Your task to perform on an android device: open app "DoorDash - Dasher" Image 0: 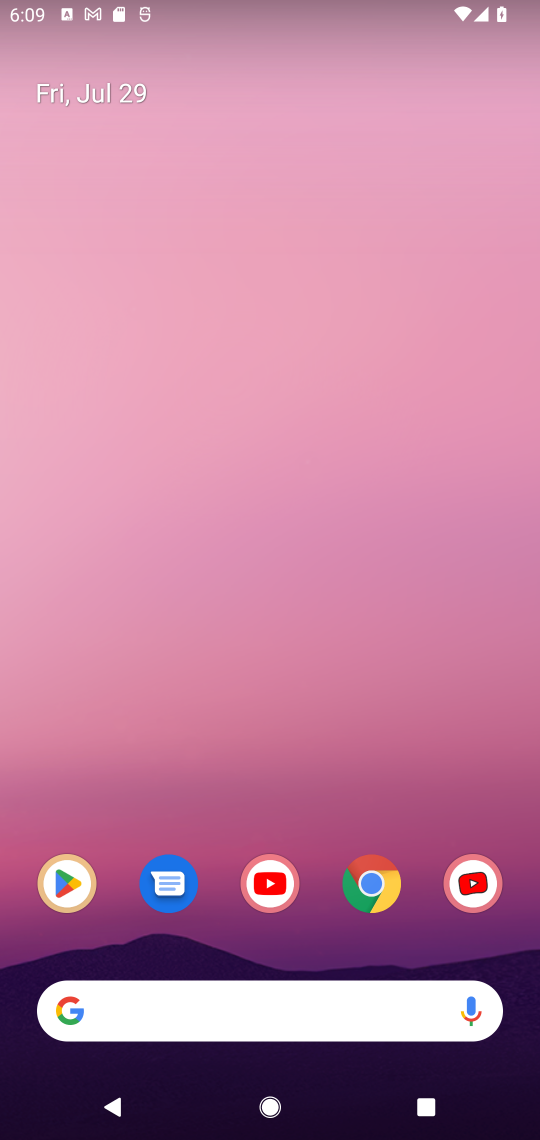
Step 0: click (74, 875)
Your task to perform on an android device: open app "DoorDash - Dasher" Image 1: 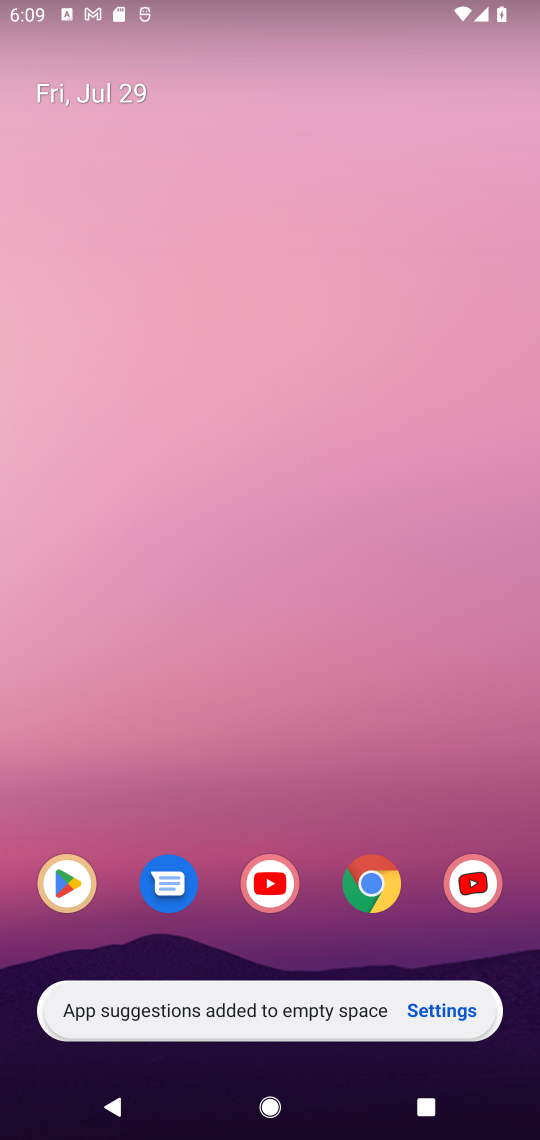
Step 1: click (67, 870)
Your task to perform on an android device: open app "DoorDash - Dasher" Image 2: 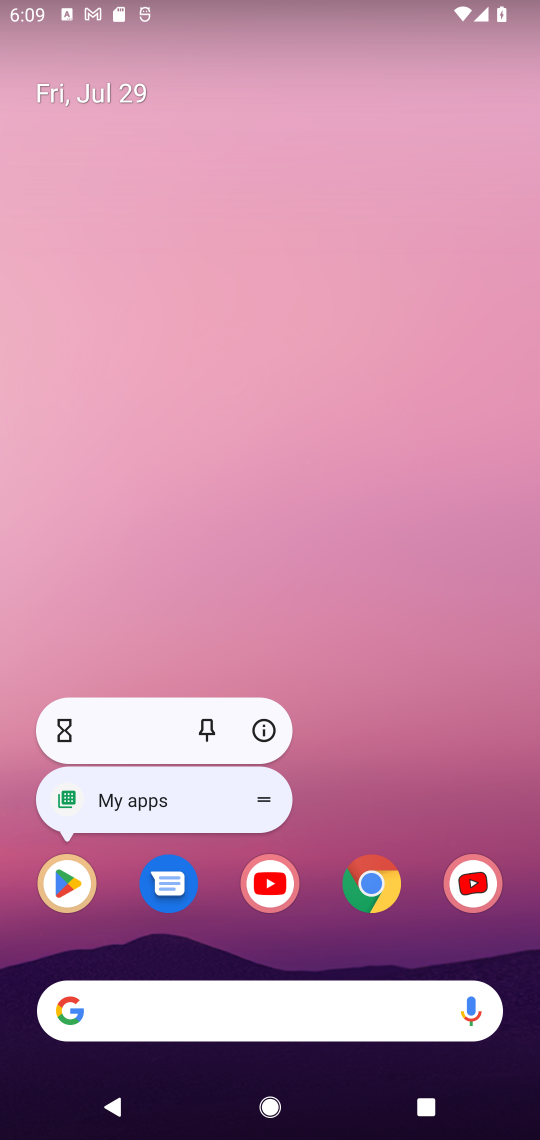
Step 2: click (55, 891)
Your task to perform on an android device: open app "DoorDash - Dasher" Image 3: 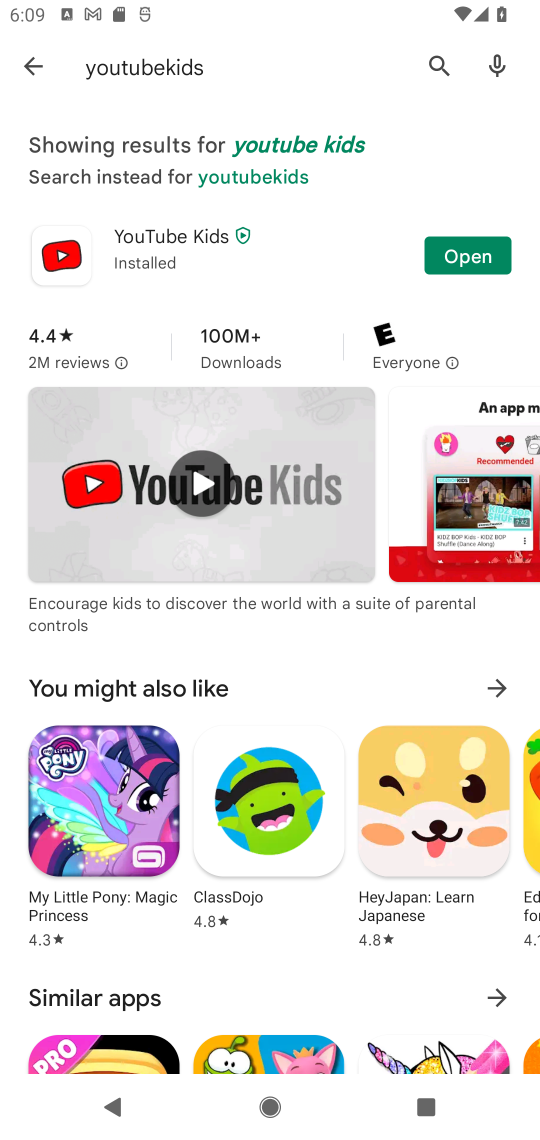
Step 3: click (439, 125)
Your task to perform on an android device: open app "DoorDash - Dasher" Image 4: 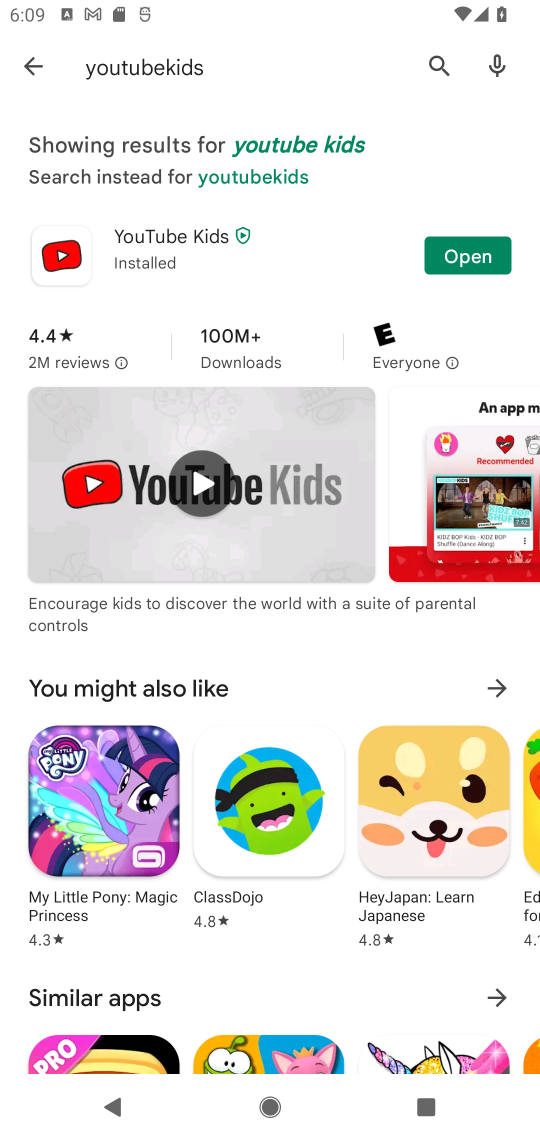
Step 4: click (445, 59)
Your task to perform on an android device: open app "DoorDash - Dasher" Image 5: 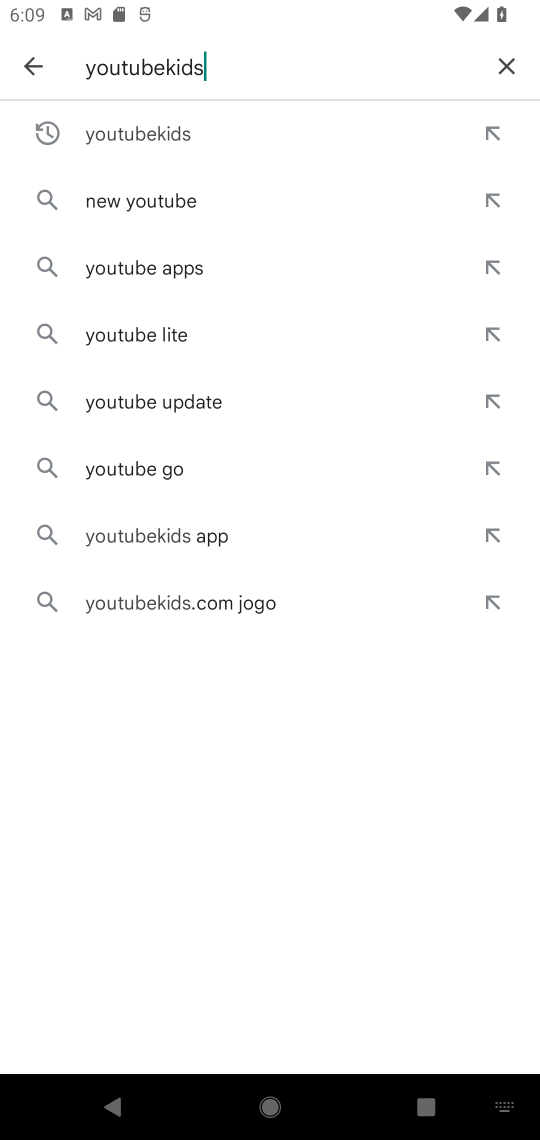
Step 5: click (508, 64)
Your task to perform on an android device: open app "DoorDash - Dasher" Image 6: 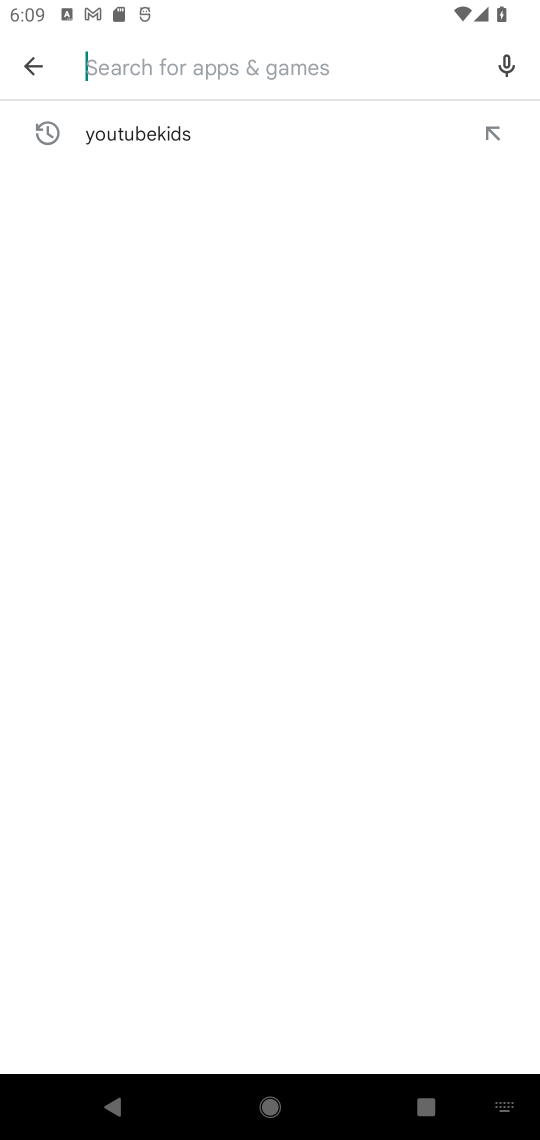
Step 6: click (240, 66)
Your task to perform on an android device: open app "DoorDash - Dasher" Image 7: 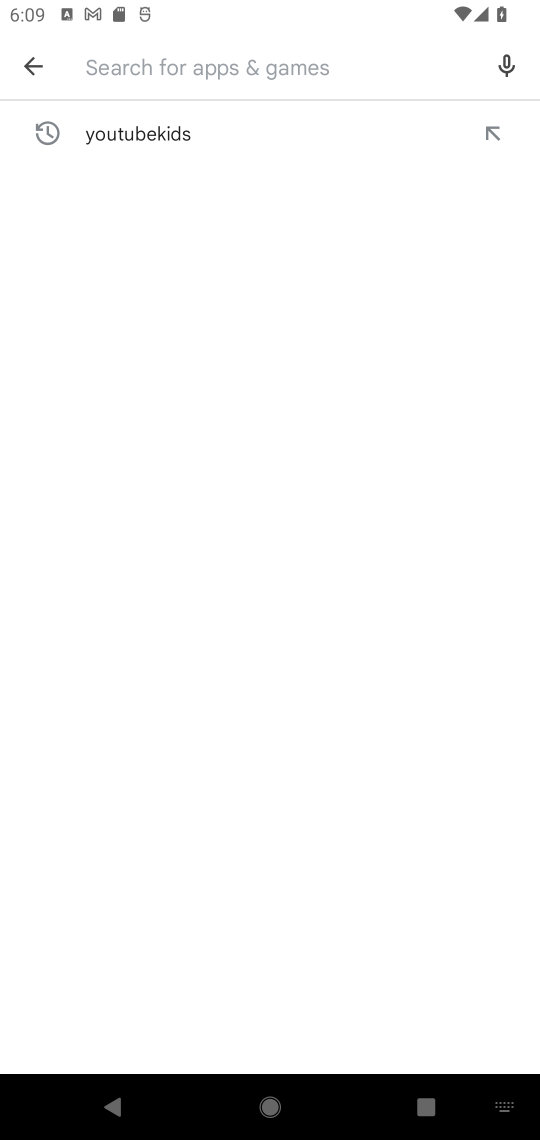
Step 7: type "doordash"
Your task to perform on an android device: open app "DoorDash - Dasher" Image 8: 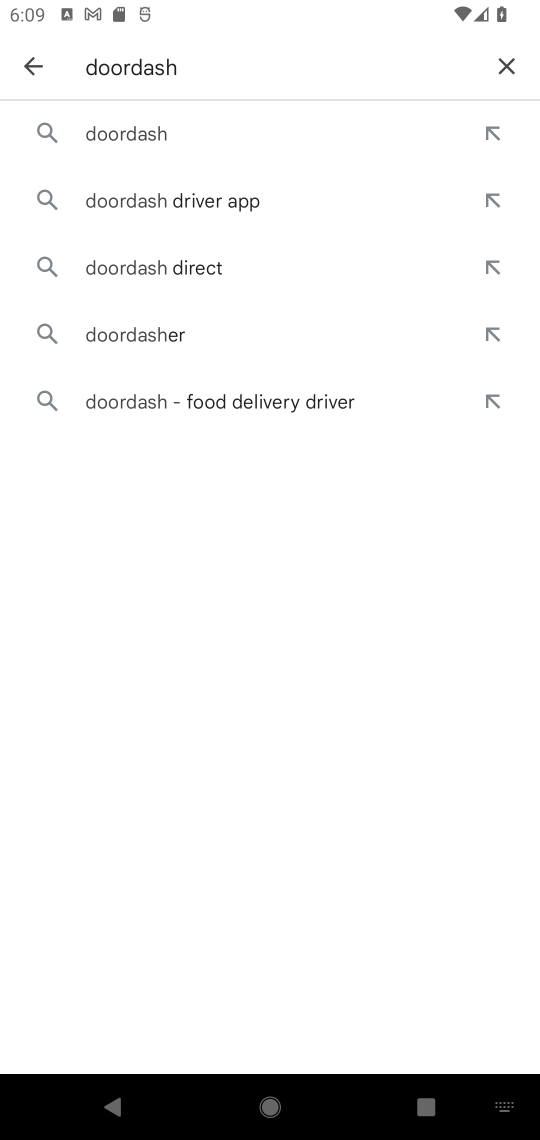
Step 8: click (124, 118)
Your task to perform on an android device: open app "DoorDash - Dasher" Image 9: 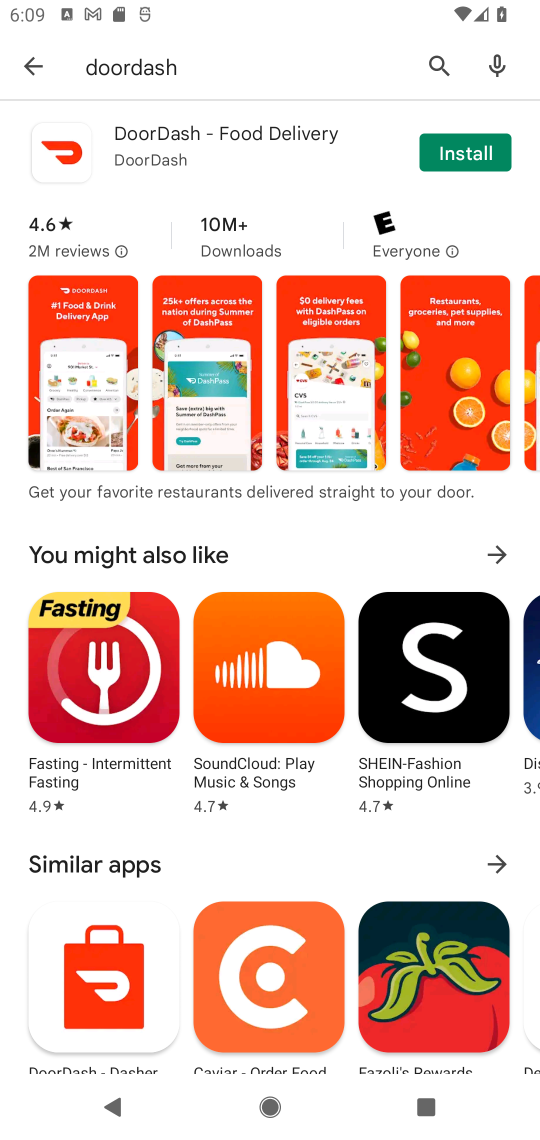
Step 9: task complete